Your task to perform on an android device: Open accessibility settings Image 0: 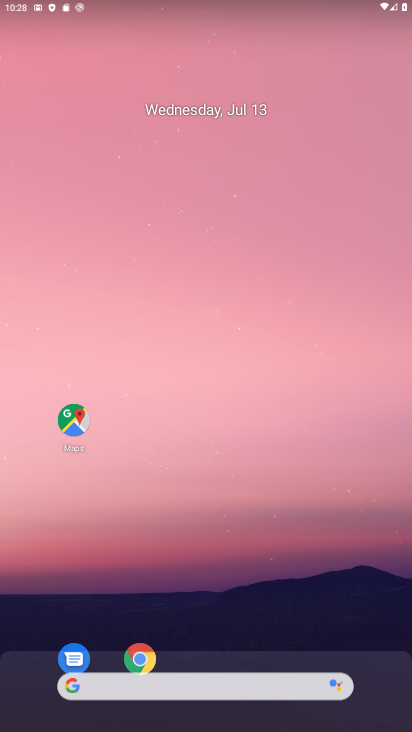
Step 0: drag from (227, 618) to (271, 184)
Your task to perform on an android device: Open accessibility settings Image 1: 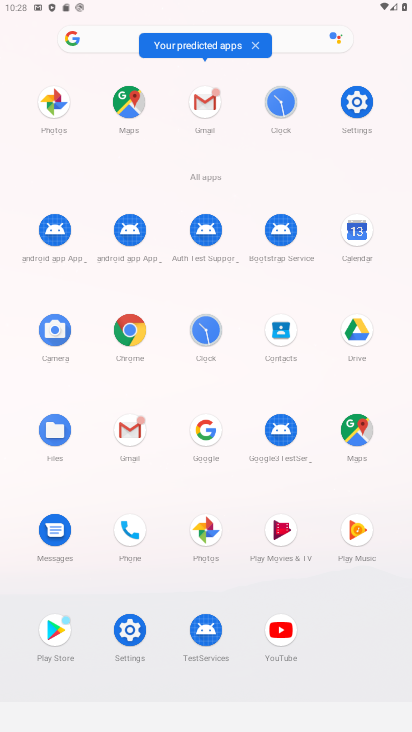
Step 1: click (130, 632)
Your task to perform on an android device: Open accessibility settings Image 2: 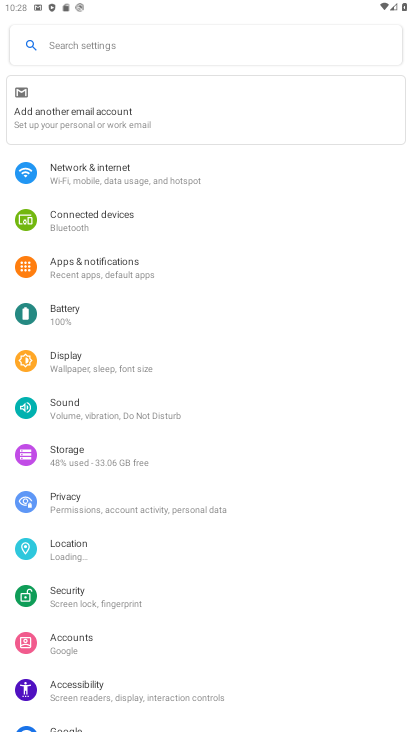
Step 2: drag from (63, 672) to (201, 380)
Your task to perform on an android device: Open accessibility settings Image 3: 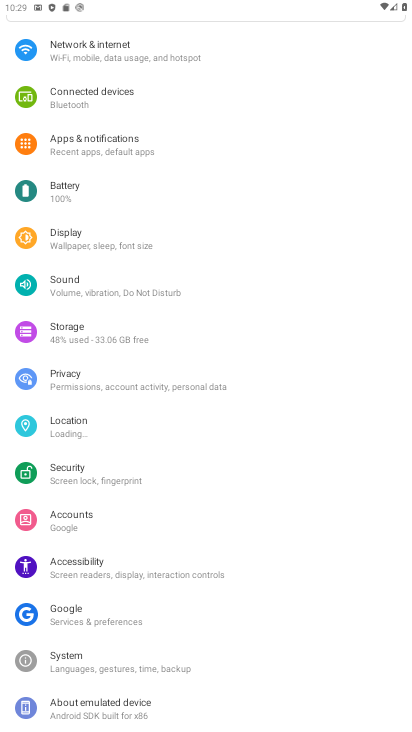
Step 3: click (64, 565)
Your task to perform on an android device: Open accessibility settings Image 4: 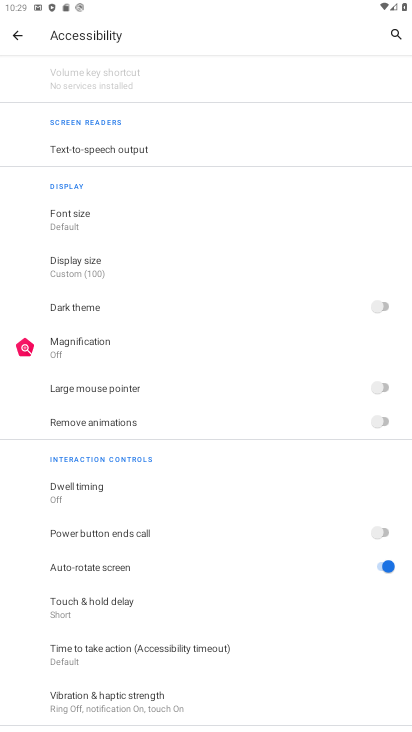
Step 4: task complete